Your task to perform on an android device: Open Google Chrome Image 0: 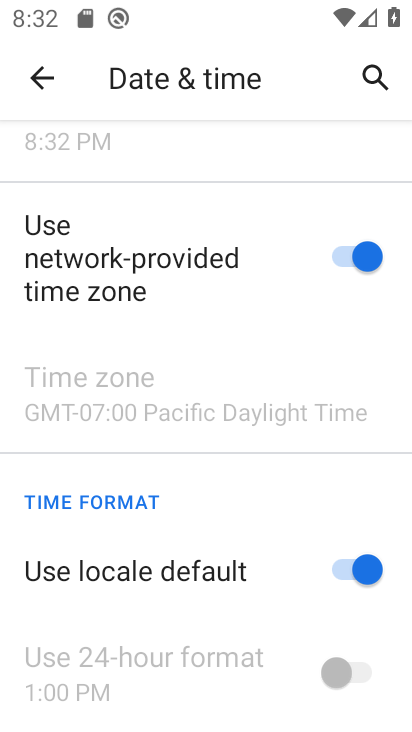
Step 0: press home button
Your task to perform on an android device: Open Google Chrome Image 1: 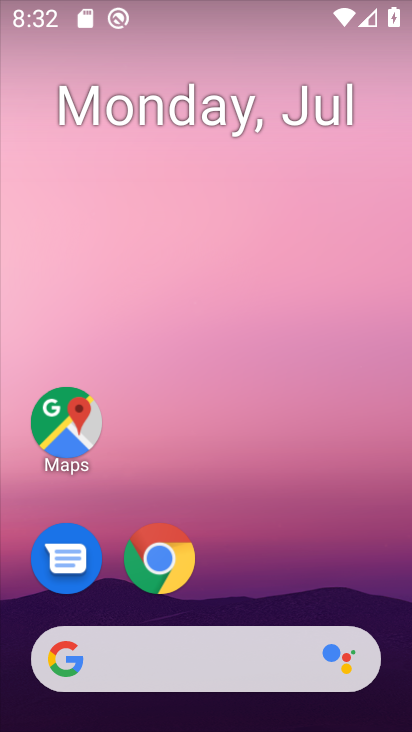
Step 1: drag from (356, 537) to (359, 149)
Your task to perform on an android device: Open Google Chrome Image 2: 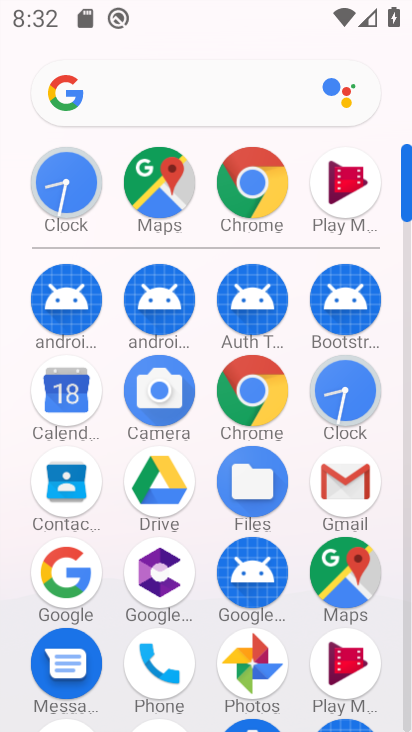
Step 2: click (257, 187)
Your task to perform on an android device: Open Google Chrome Image 3: 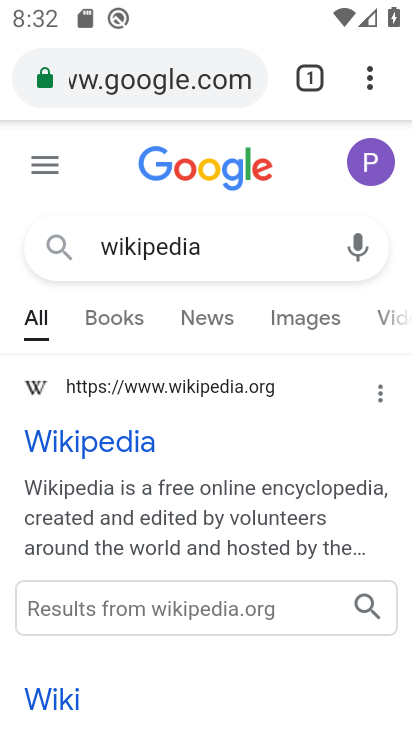
Step 3: task complete